Your task to perform on an android device: open app "Google Maps" Image 0: 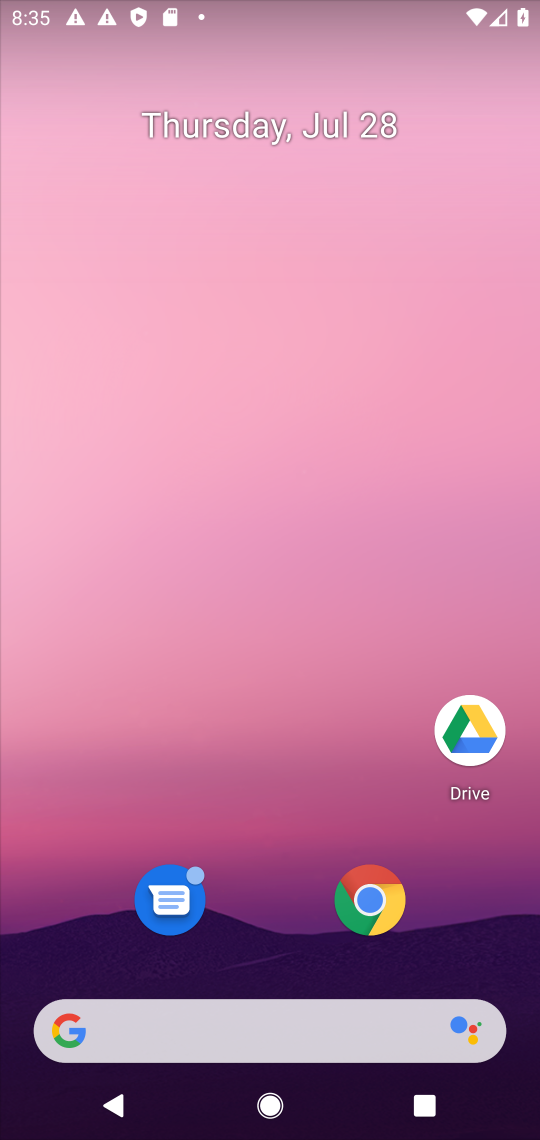
Step 0: drag from (247, 685) to (264, 252)
Your task to perform on an android device: open app "Google Maps" Image 1: 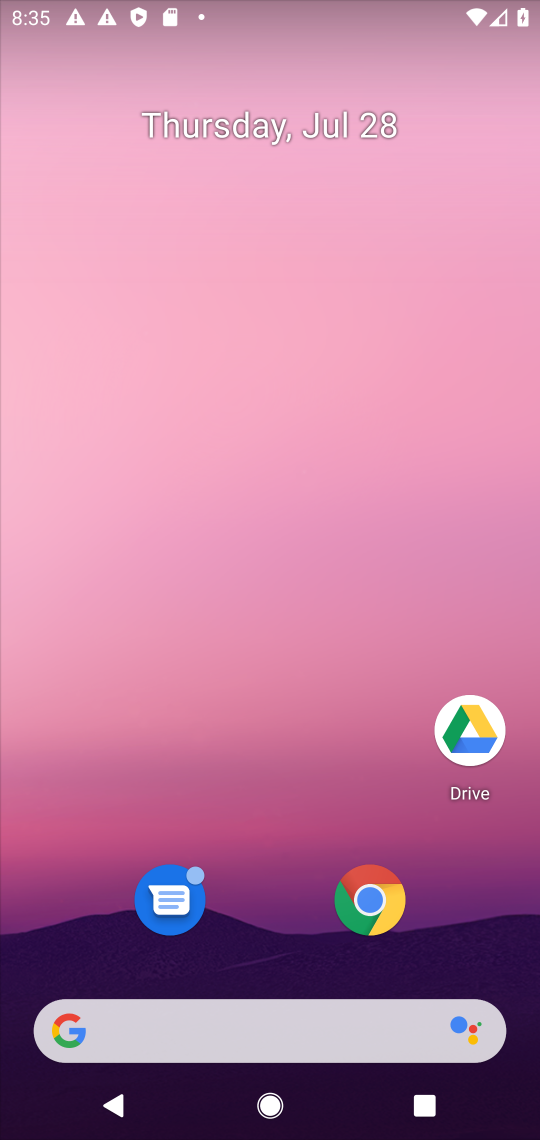
Step 1: drag from (279, 732) to (335, 71)
Your task to perform on an android device: open app "Google Maps" Image 2: 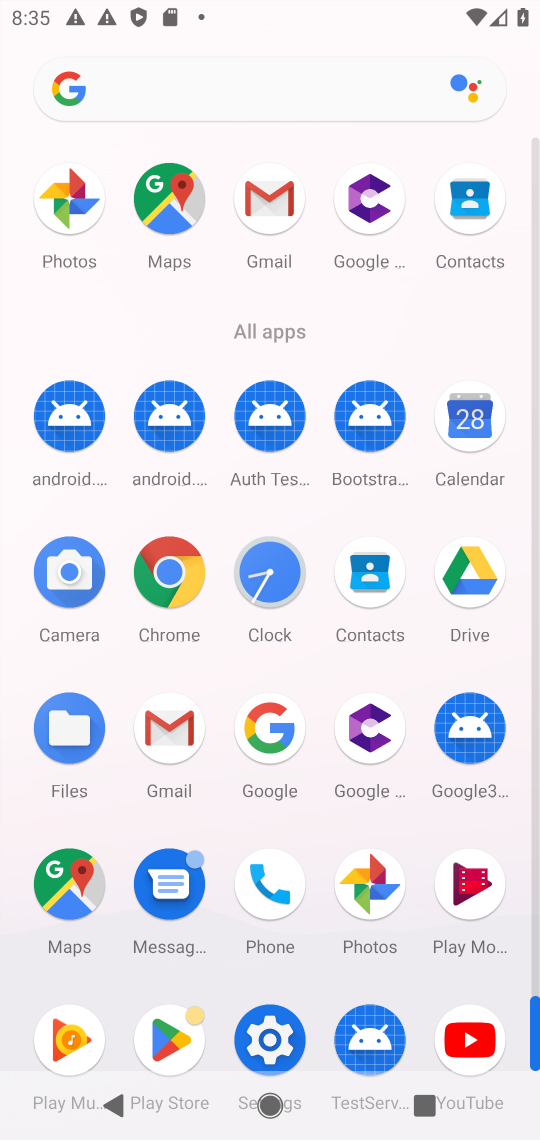
Step 2: click (174, 217)
Your task to perform on an android device: open app "Google Maps" Image 3: 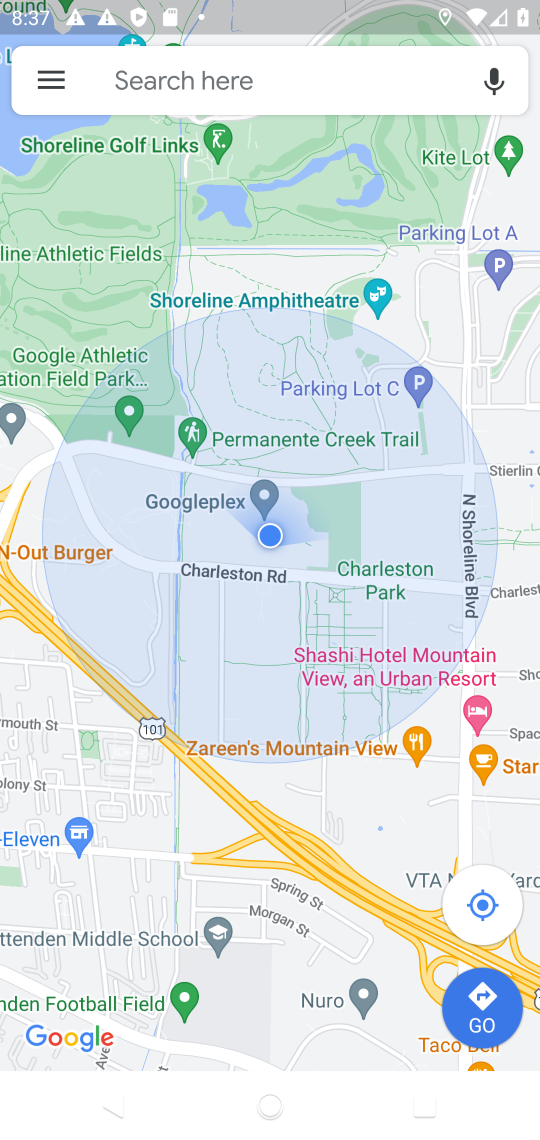
Step 3: task complete